Your task to perform on an android device: Go to Wikipedia Image 0: 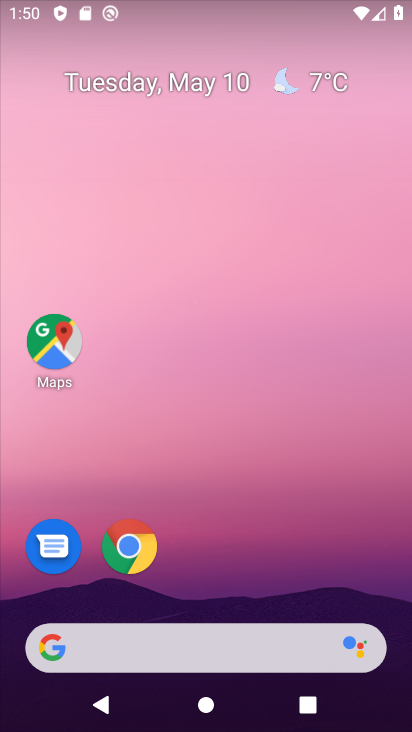
Step 0: drag from (274, 544) to (265, 38)
Your task to perform on an android device: Go to Wikipedia Image 1: 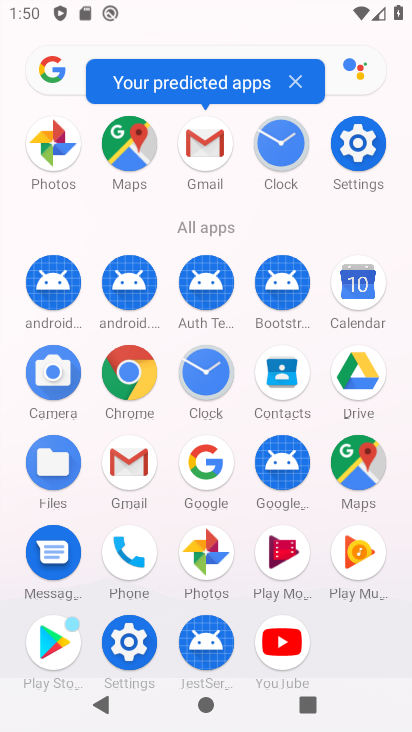
Step 1: click (110, 363)
Your task to perform on an android device: Go to Wikipedia Image 2: 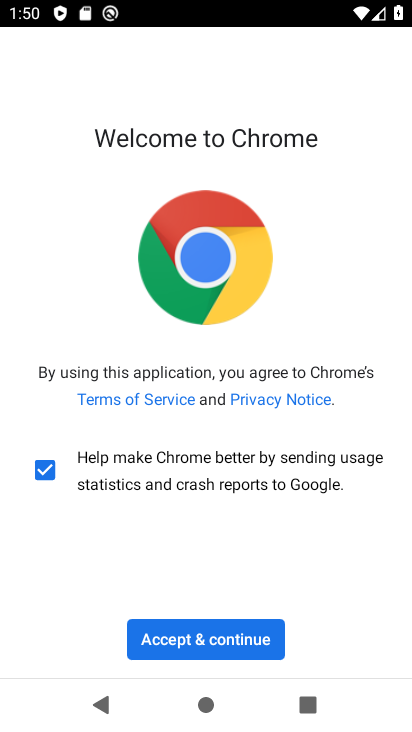
Step 2: click (157, 646)
Your task to perform on an android device: Go to Wikipedia Image 3: 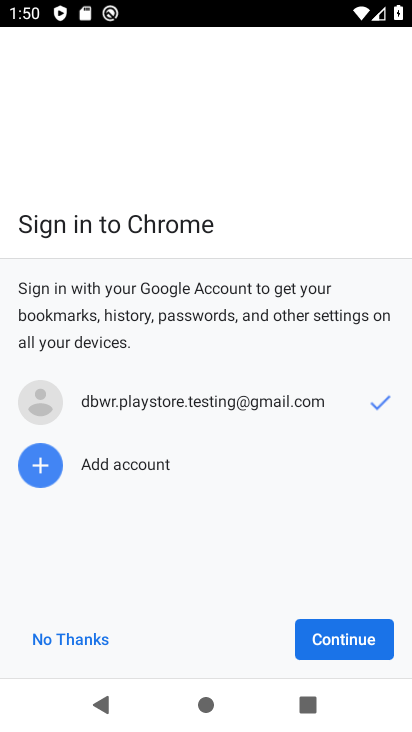
Step 3: click (67, 633)
Your task to perform on an android device: Go to Wikipedia Image 4: 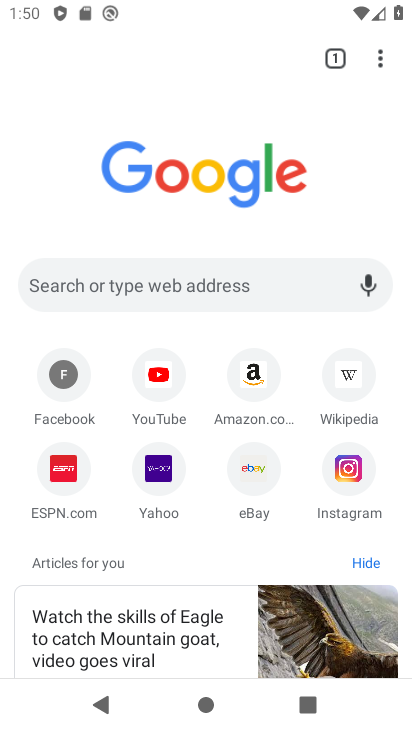
Step 4: click (332, 381)
Your task to perform on an android device: Go to Wikipedia Image 5: 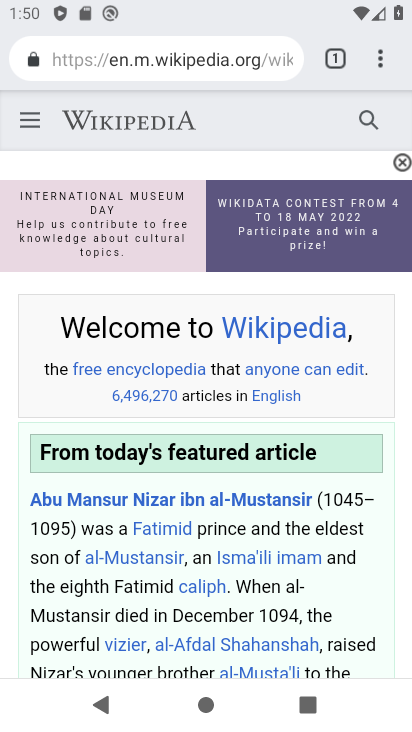
Step 5: task complete